Your task to perform on an android device: open chrome privacy settings Image 0: 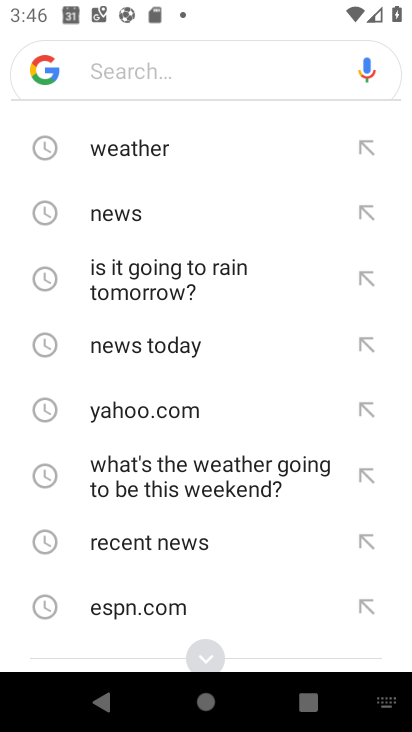
Step 0: press home button
Your task to perform on an android device: open chrome privacy settings Image 1: 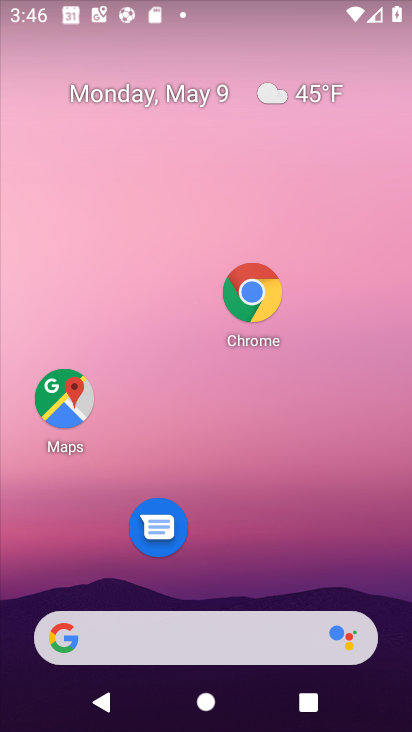
Step 1: click (249, 295)
Your task to perform on an android device: open chrome privacy settings Image 2: 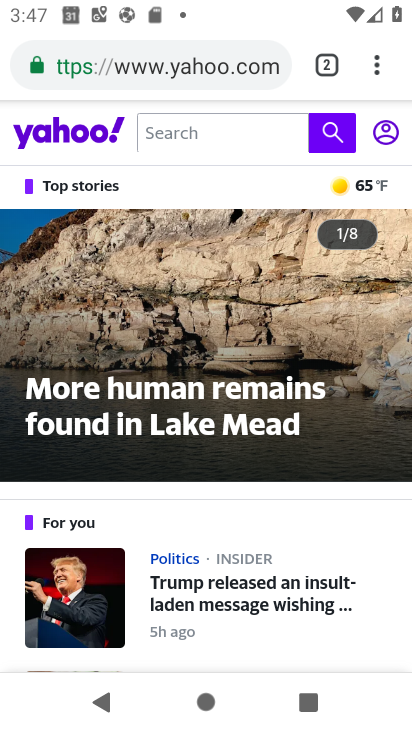
Step 2: click (375, 73)
Your task to perform on an android device: open chrome privacy settings Image 3: 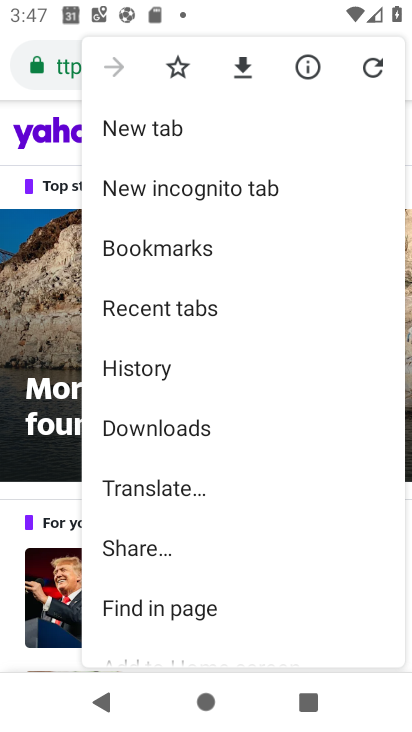
Step 3: drag from (203, 520) to (205, 362)
Your task to perform on an android device: open chrome privacy settings Image 4: 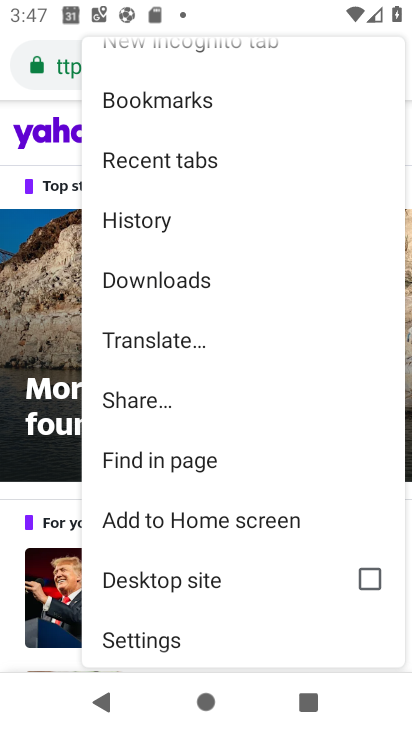
Step 4: click (220, 641)
Your task to perform on an android device: open chrome privacy settings Image 5: 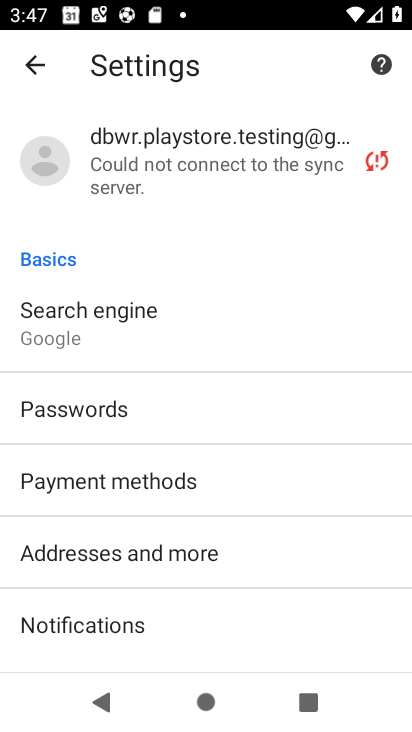
Step 5: drag from (220, 641) to (264, 426)
Your task to perform on an android device: open chrome privacy settings Image 6: 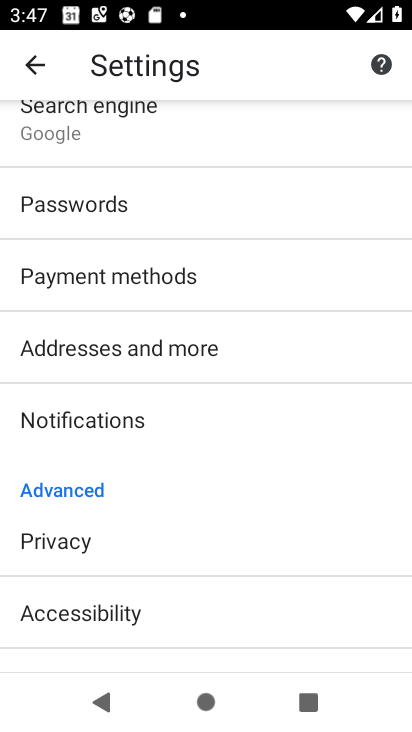
Step 6: click (91, 534)
Your task to perform on an android device: open chrome privacy settings Image 7: 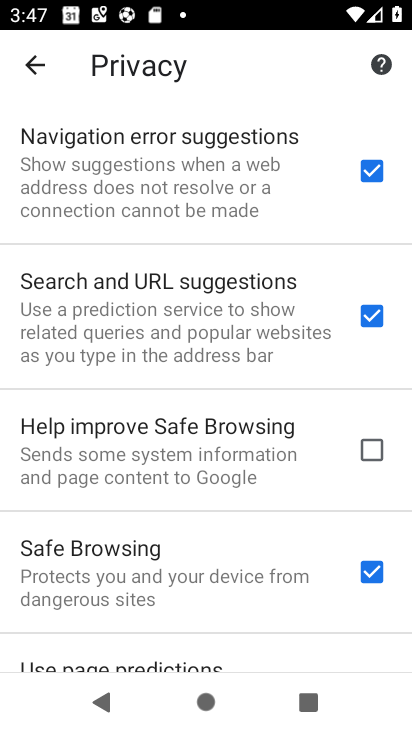
Step 7: task complete